Your task to perform on an android device: Go to location settings Image 0: 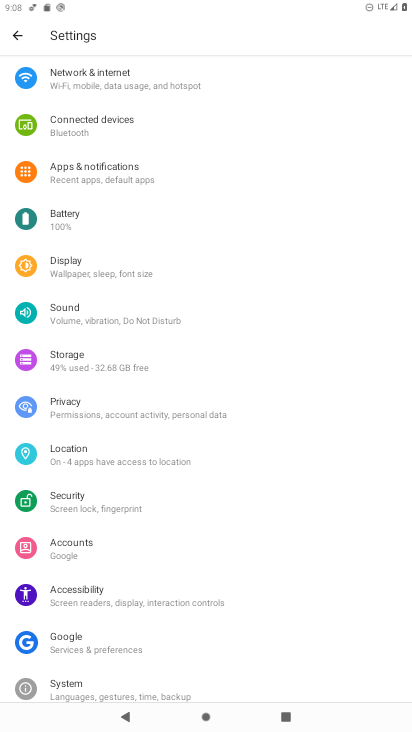
Step 0: click (110, 454)
Your task to perform on an android device: Go to location settings Image 1: 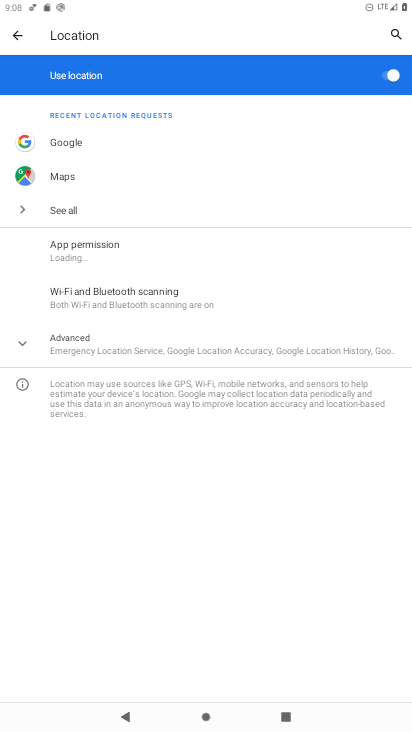
Step 1: task complete